Your task to perform on an android device: set the stopwatch Image 0: 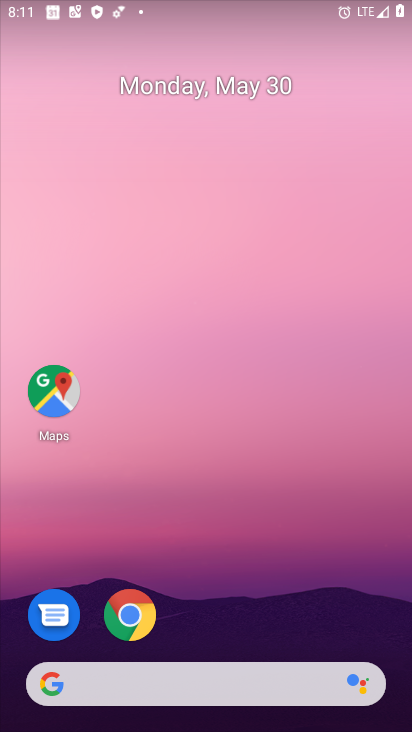
Step 0: drag from (245, 557) to (233, 67)
Your task to perform on an android device: set the stopwatch Image 1: 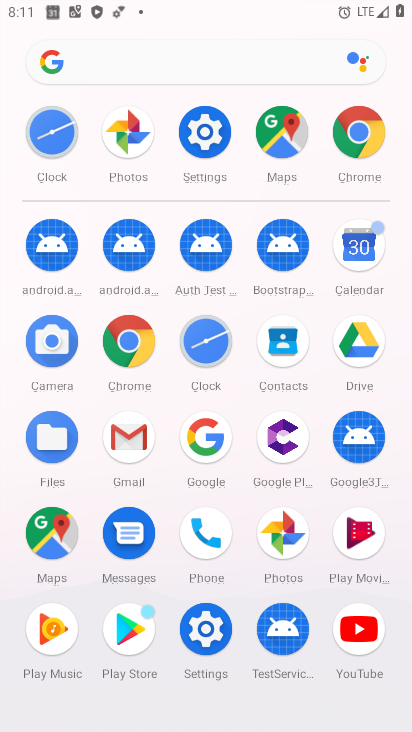
Step 1: click (192, 351)
Your task to perform on an android device: set the stopwatch Image 2: 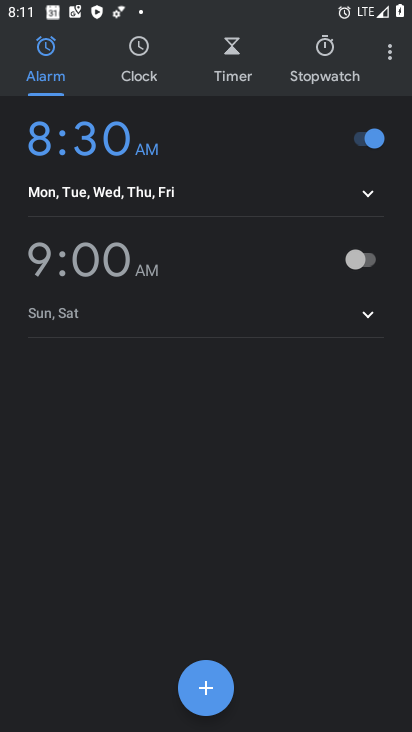
Step 2: click (312, 75)
Your task to perform on an android device: set the stopwatch Image 3: 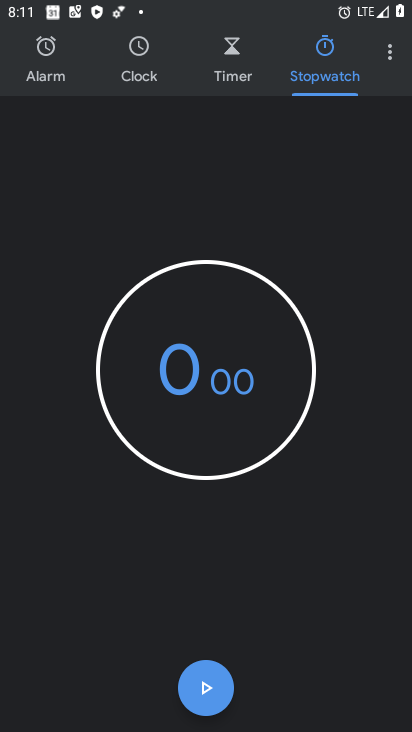
Step 3: click (196, 692)
Your task to perform on an android device: set the stopwatch Image 4: 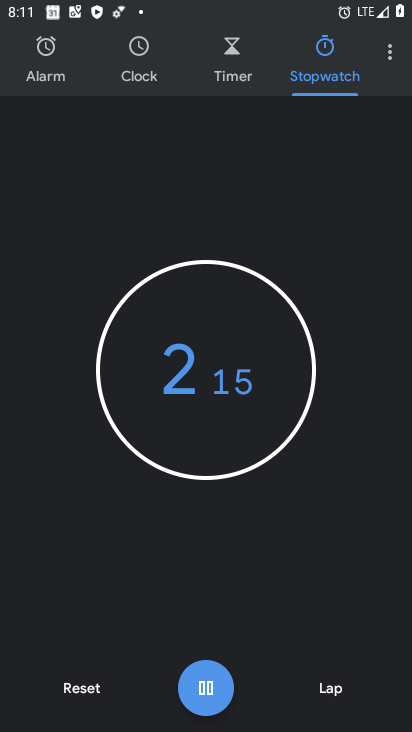
Step 4: task complete